Your task to perform on an android device: Is it going to rain today? Image 0: 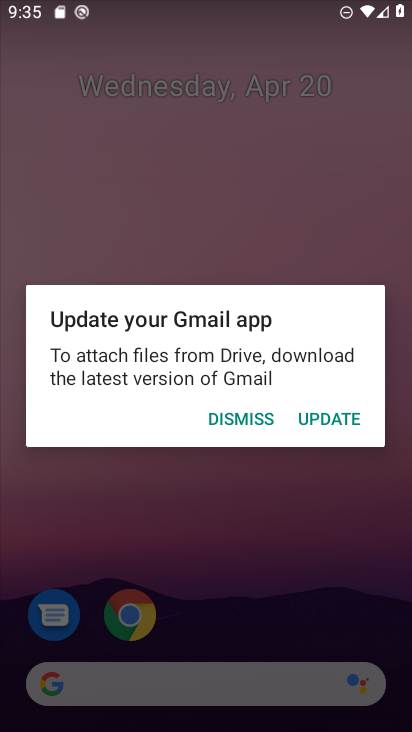
Step 0: press home button
Your task to perform on an android device: Is it going to rain today? Image 1: 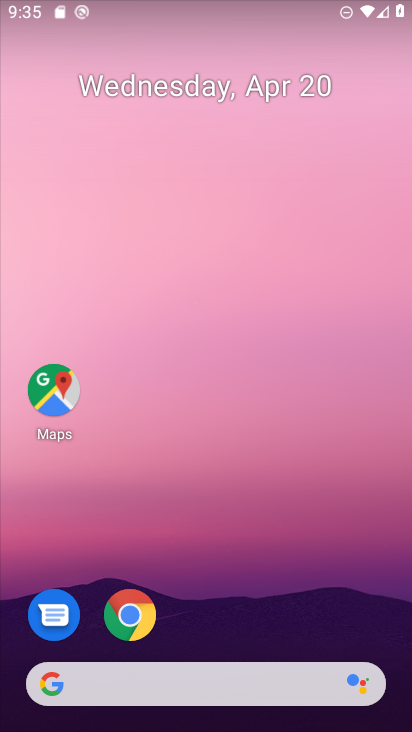
Step 1: drag from (221, 609) to (297, 225)
Your task to perform on an android device: Is it going to rain today? Image 2: 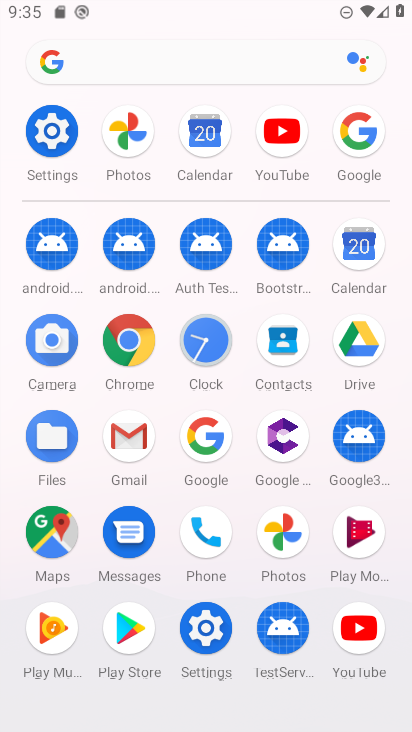
Step 2: click (209, 434)
Your task to perform on an android device: Is it going to rain today? Image 3: 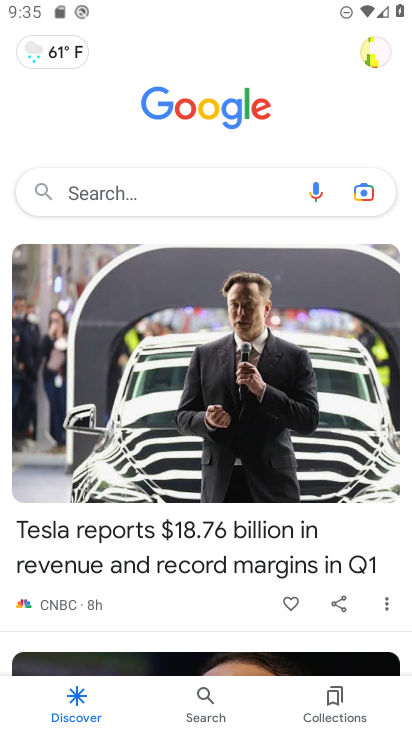
Step 3: click (232, 190)
Your task to perform on an android device: Is it going to rain today? Image 4: 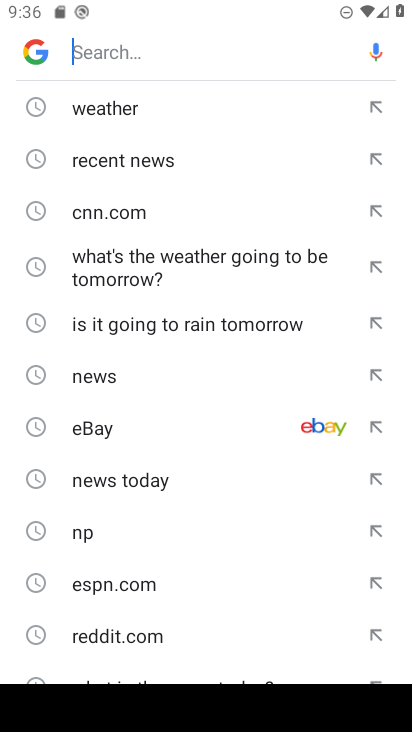
Step 4: click (130, 107)
Your task to perform on an android device: Is it going to rain today? Image 5: 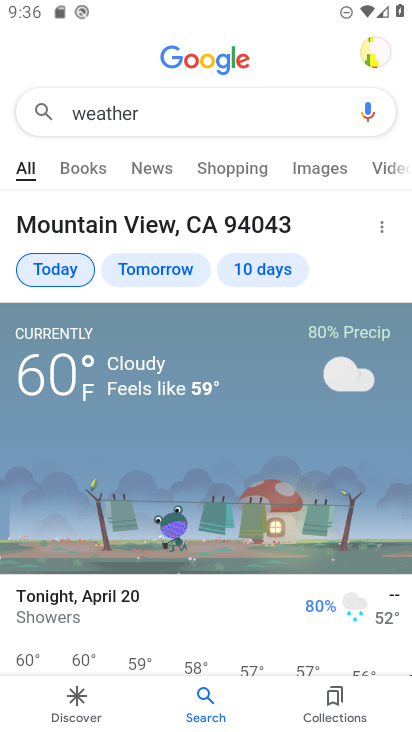
Step 5: task complete